Your task to perform on an android device: Open network settings Image 0: 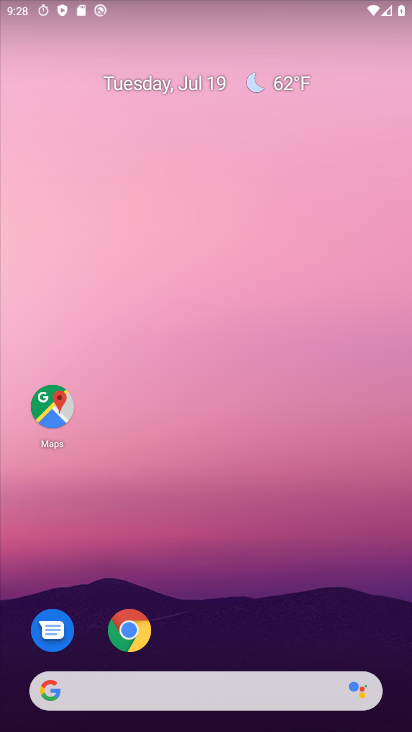
Step 0: drag from (256, 686) to (274, 226)
Your task to perform on an android device: Open network settings Image 1: 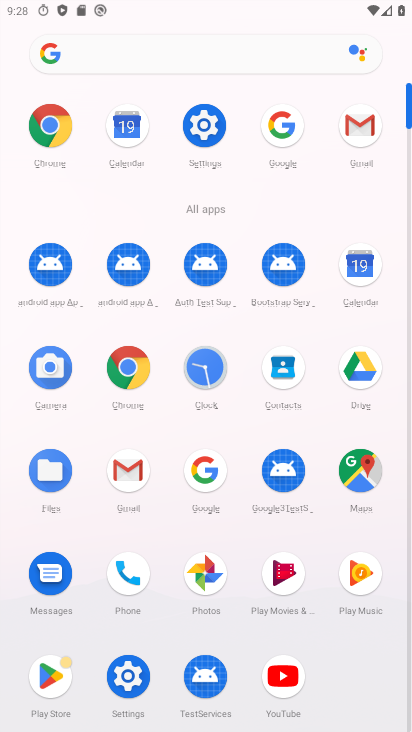
Step 1: click (210, 132)
Your task to perform on an android device: Open network settings Image 2: 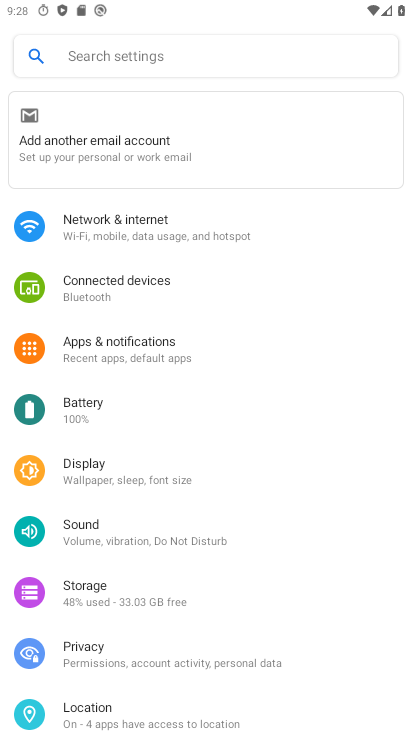
Step 2: click (156, 231)
Your task to perform on an android device: Open network settings Image 3: 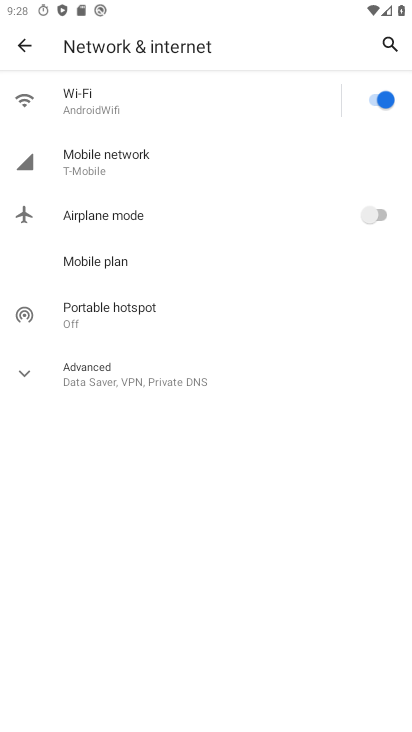
Step 3: click (144, 231)
Your task to perform on an android device: Open network settings Image 4: 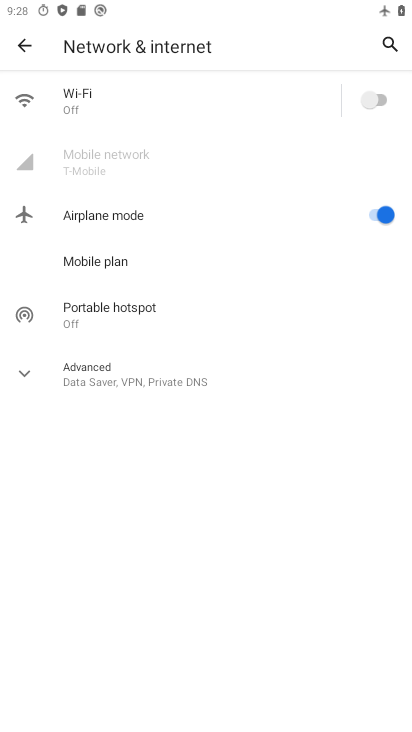
Step 4: click (378, 211)
Your task to perform on an android device: Open network settings Image 5: 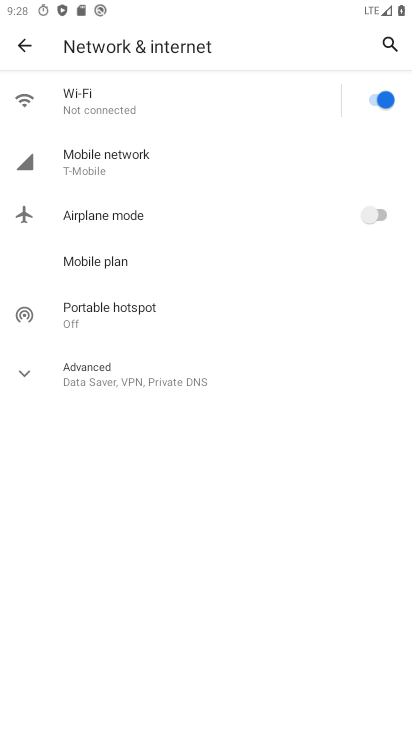
Step 5: click (84, 164)
Your task to perform on an android device: Open network settings Image 6: 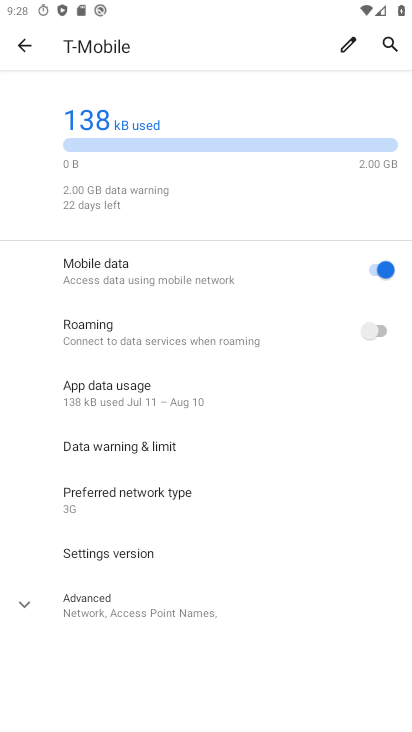
Step 6: click (93, 609)
Your task to perform on an android device: Open network settings Image 7: 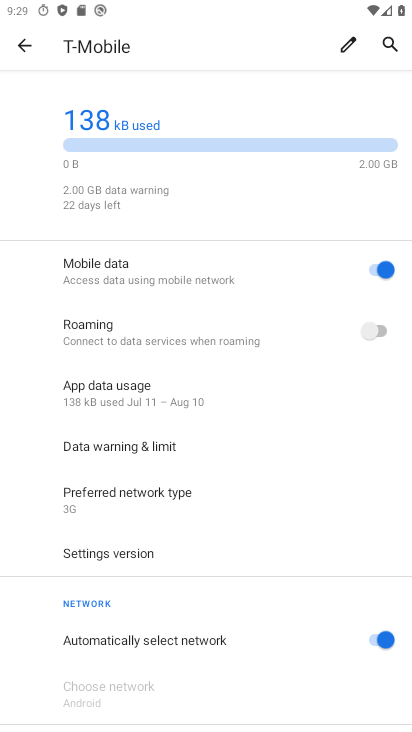
Step 7: task complete